Your task to perform on an android device: Go to Maps Image 0: 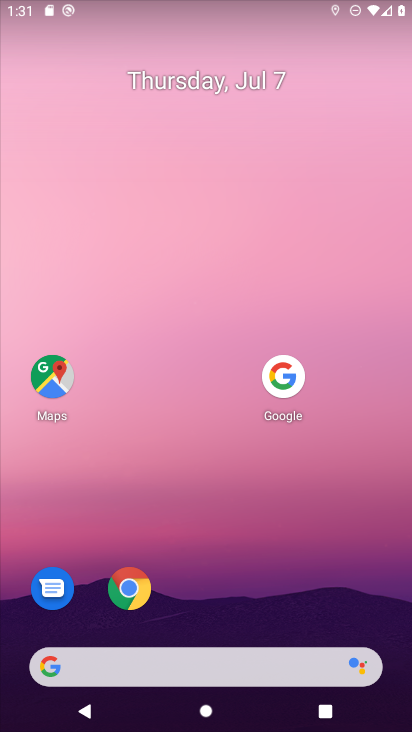
Step 0: click (46, 371)
Your task to perform on an android device: Go to Maps Image 1: 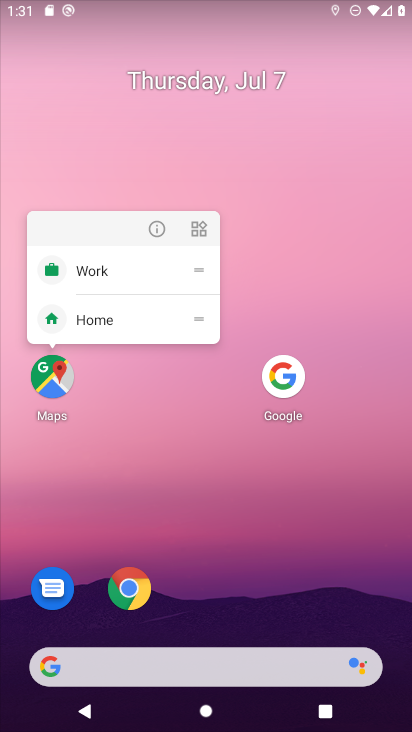
Step 1: click (59, 378)
Your task to perform on an android device: Go to Maps Image 2: 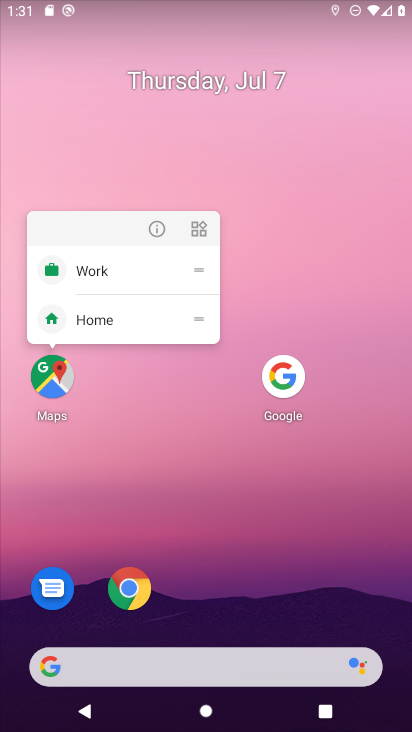
Step 2: click (60, 378)
Your task to perform on an android device: Go to Maps Image 3: 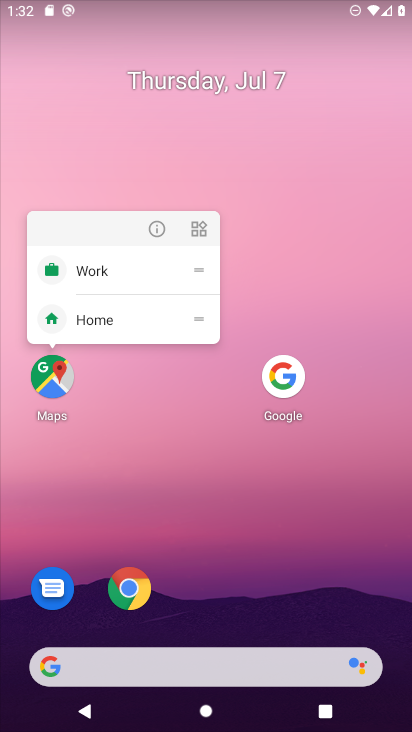
Step 3: click (48, 367)
Your task to perform on an android device: Go to Maps Image 4: 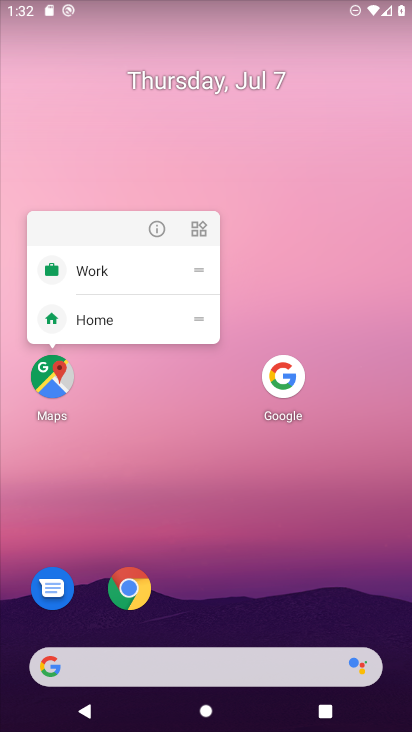
Step 4: click (52, 384)
Your task to perform on an android device: Go to Maps Image 5: 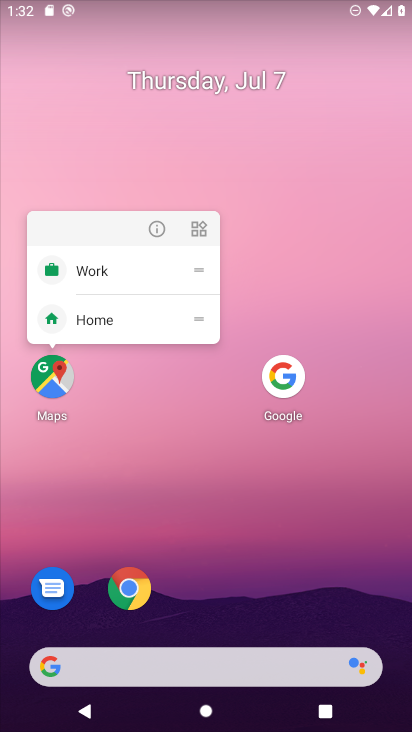
Step 5: click (56, 379)
Your task to perform on an android device: Go to Maps Image 6: 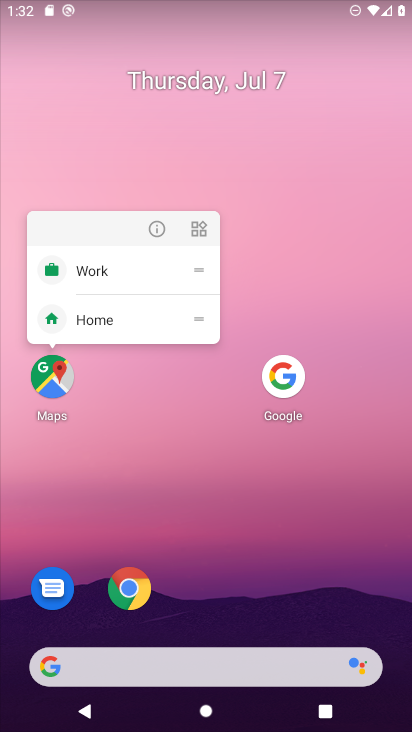
Step 6: click (57, 381)
Your task to perform on an android device: Go to Maps Image 7: 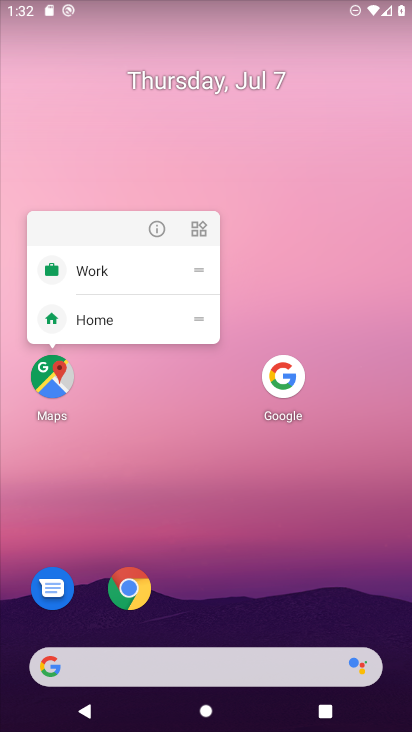
Step 7: click (57, 383)
Your task to perform on an android device: Go to Maps Image 8: 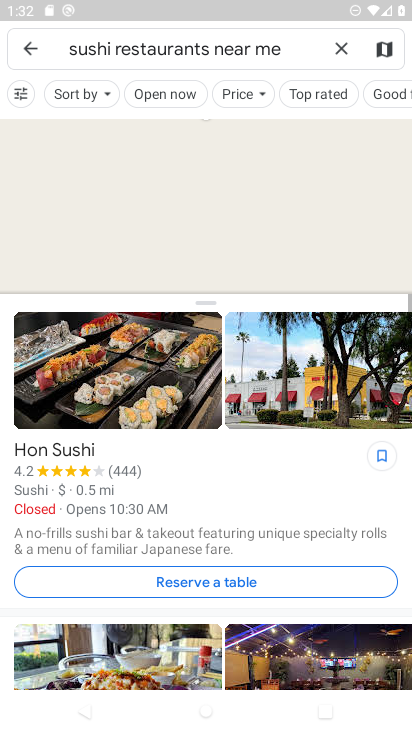
Step 8: task complete